Your task to perform on an android device: Go to privacy settings Image 0: 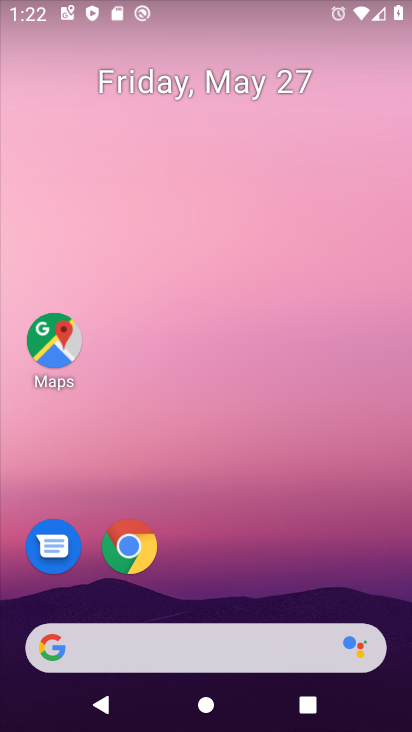
Step 0: press home button
Your task to perform on an android device: Go to privacy settings Image 1: 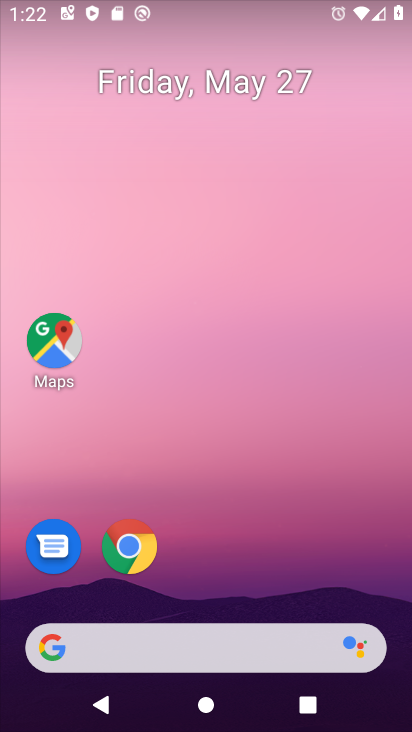
Step 1: drag from (272, 649) to (273, 150)
Your task to perform on an android device: Go to privacy settings Image 2: 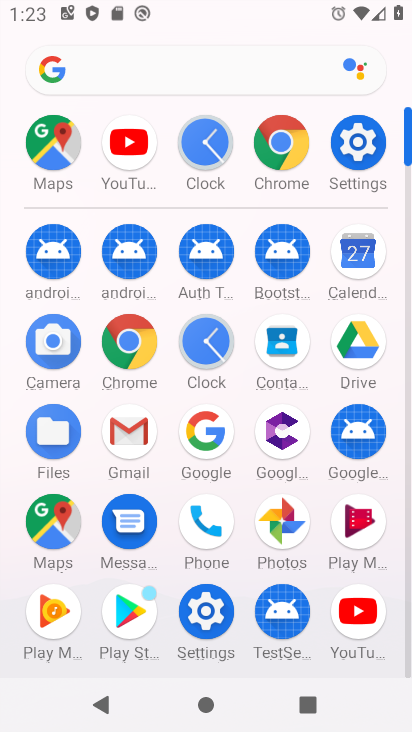
Step 2: click (360, 120)
Your task to perform on an android device: Go to privacy settings Image 3: 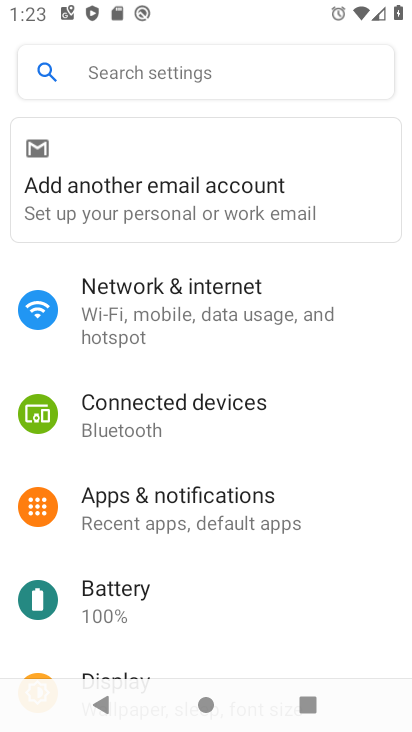
Step 3: drag from (145, 621) to (239, 321)
Your task to perform on an android device: Go to privacy settings Image 4: 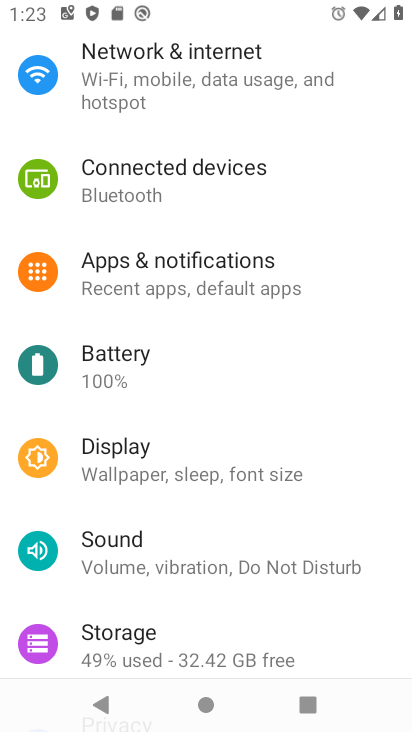
Step 4: drag from (157, 476) to (160, 300)
Your task to perform on an android device: Go to privacy settings Image 5: 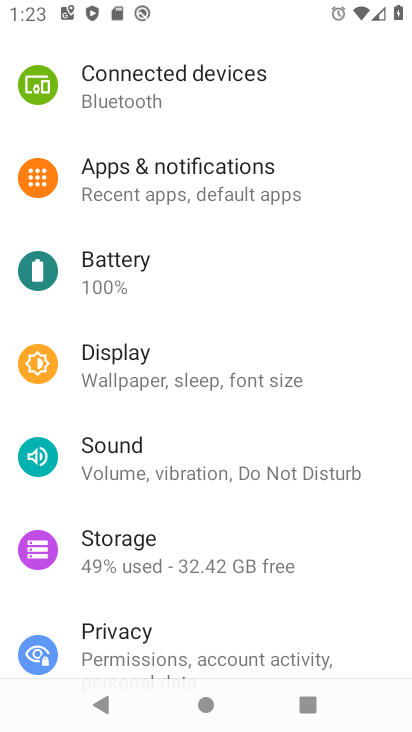
Step 5: click (133, 625)
Your task to perform on an android device: Go to privacy settings Image 6: 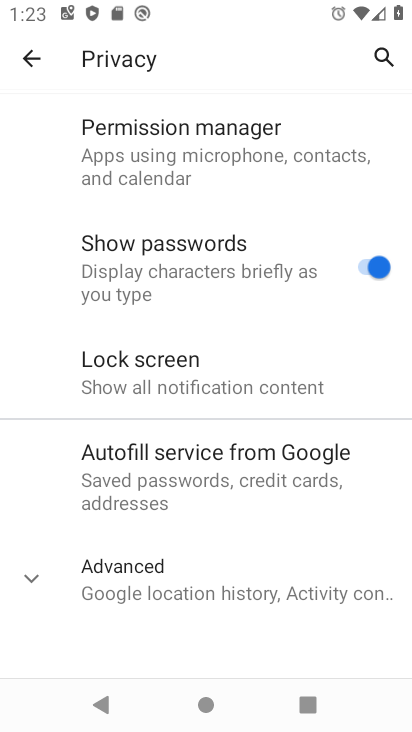
Step 6: task complete